Your task to perform on an android device: turn on location history Image 0: 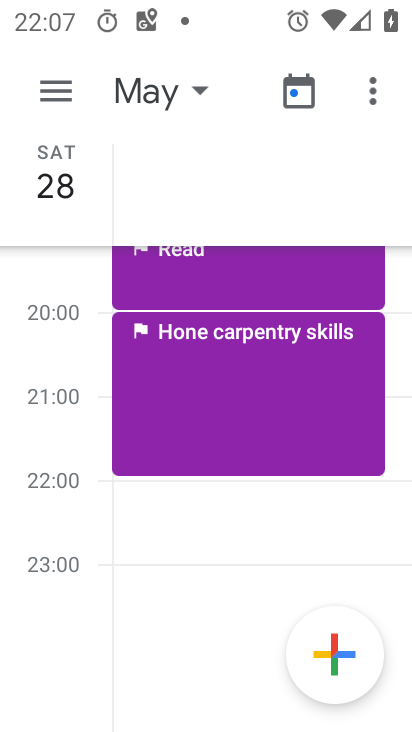
Step 0: press home button
Your task to perform on an android device: turn on location history Image 1: 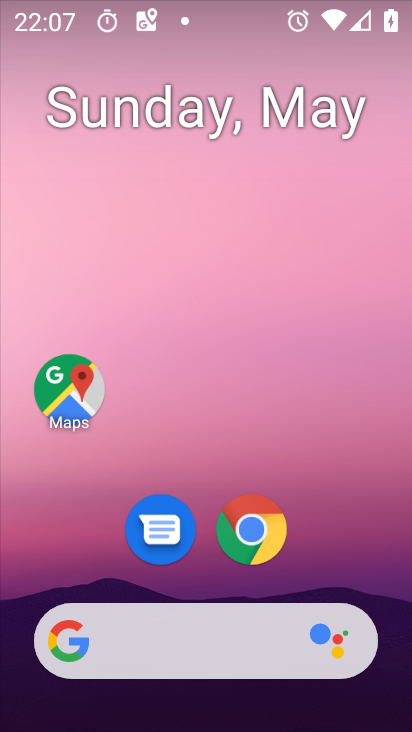
Step 1: click (74, 391)
Your task to perform on an android device: turn on location history Image 2: 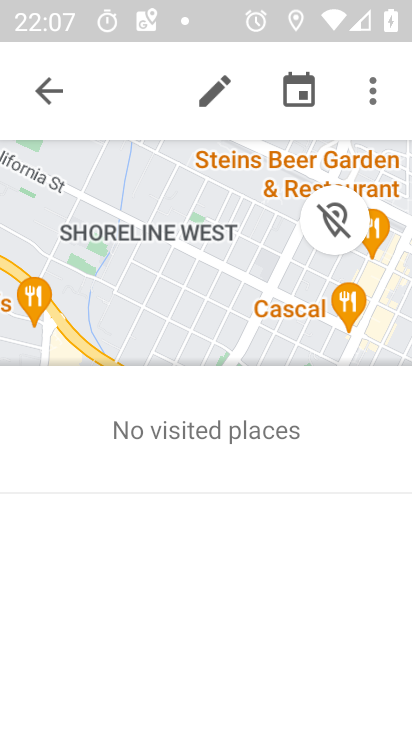
Step 2: click (372, 91)
Your task to perform on an android device: turn on location history Image 3: 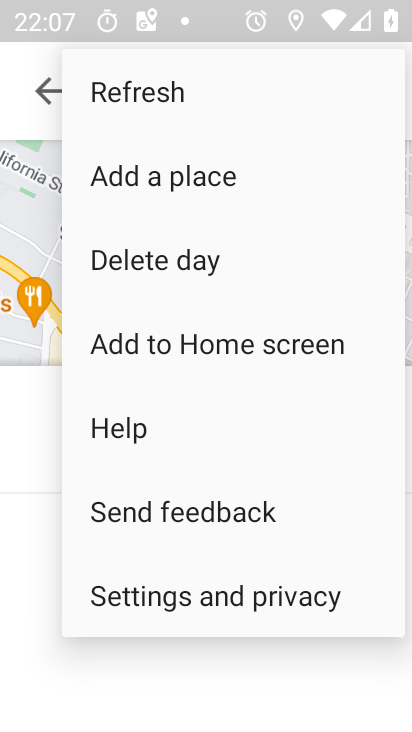
Step 3: click (258, 599)
Your task to perform on an android device: turn on location history Image 4: 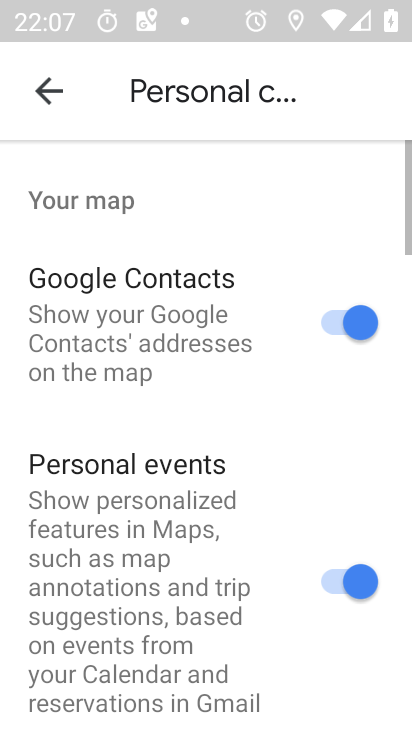
Step 4: drag from (247, 609) to (244, 10)
Your task to perform on an android device: turn on location history Image 5: 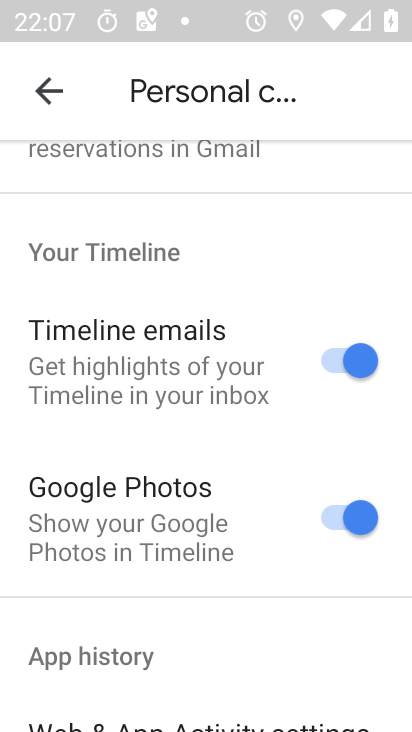
Step 5: drag from (162, 537) to (169, 8)
Your task to perform on an android device: turn on location history Image 6: 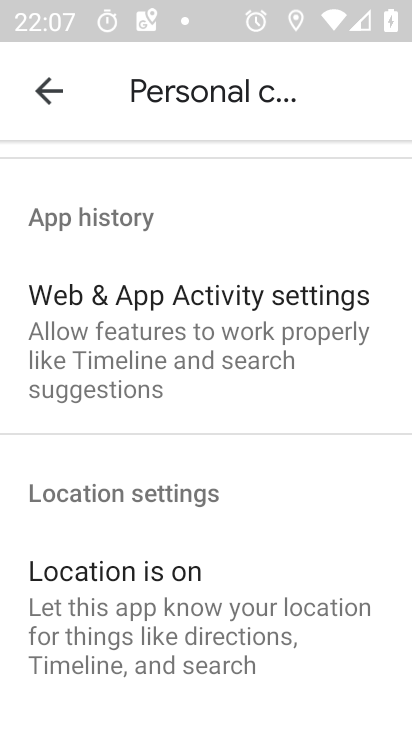
Step 6: drag from (122, 562) to (104, 80)
Your task to perform on an android device: turn on location history Image 7: 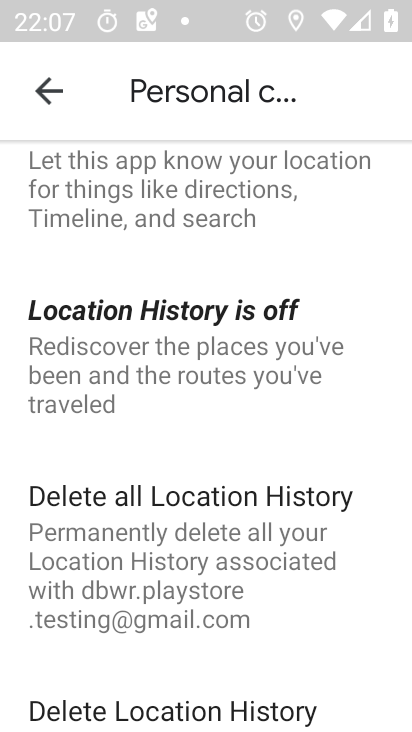
Step 7: drag from (119, 531) to (123, 78)
Your task to perform on an android device: turn on location history Image 8: 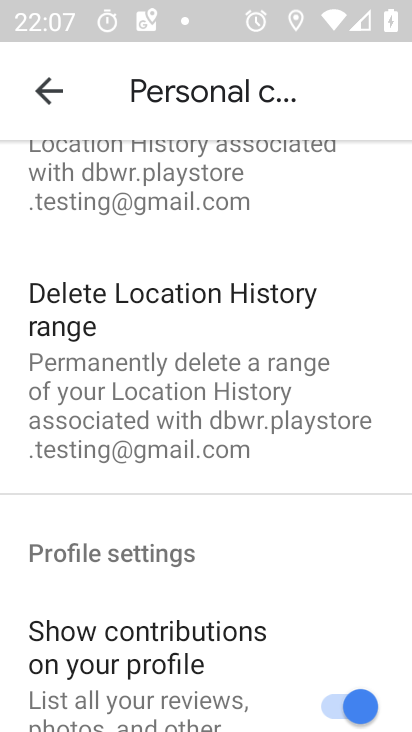
Step 8: drag from (125, 199) to (112, 663)
Your task to perform on an android device: turn on location history Image 9: 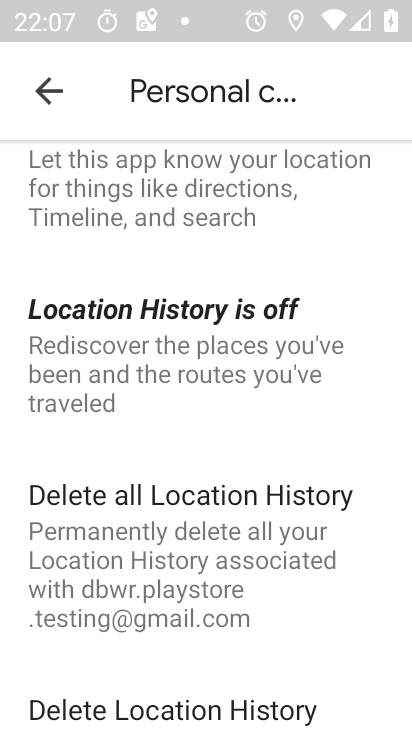
Step 9: click (125, 357)
Your task to perform on an android device: turn on location history Image 10: 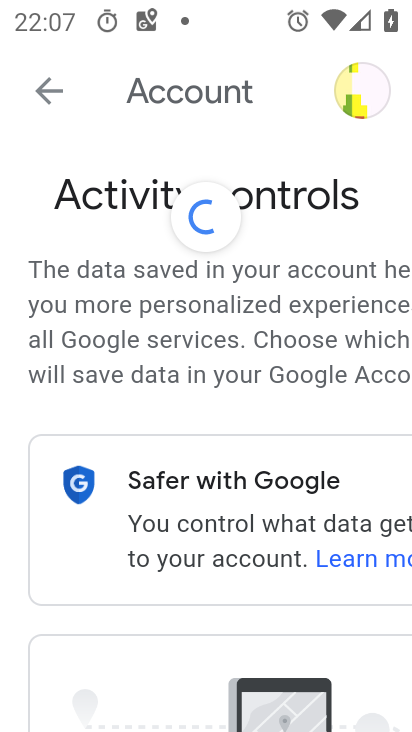
Step 10: drag from (216, 552) to (206, 120)
Your task to perform on an android device: turn on location history Image 11: 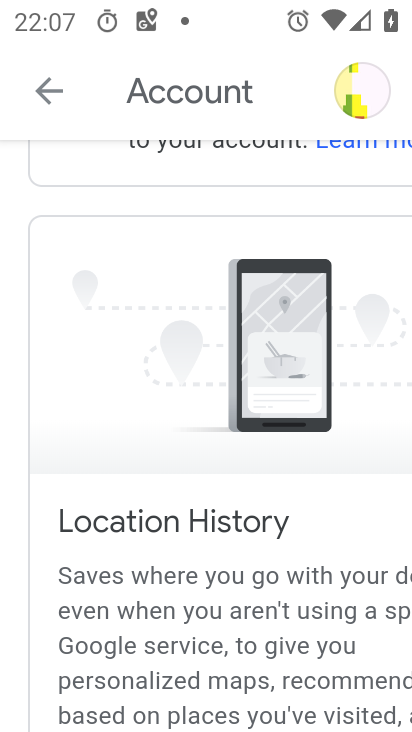
Step 11: drag from (184, 582) to (206, 87)
Your task to perform on an android device: turn on location history Image 12: 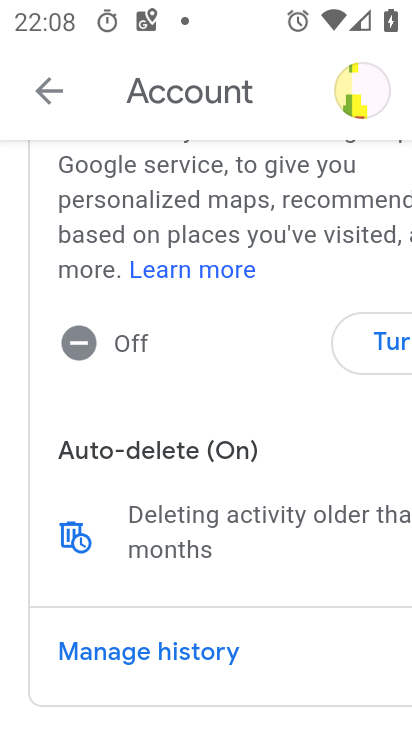
Step 12: click (392, 347)
Your task to perform on an android device: turn on location history Image 13: 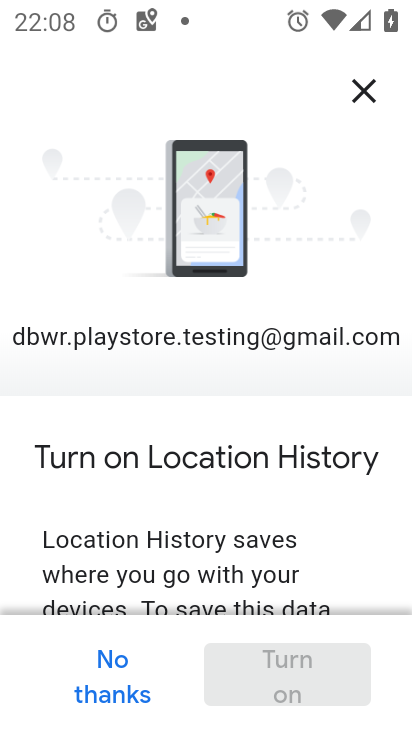
Step 13: drag from (208, 510) to (191, 37)
Your task to perform on an android device: turn on location history Image 14: 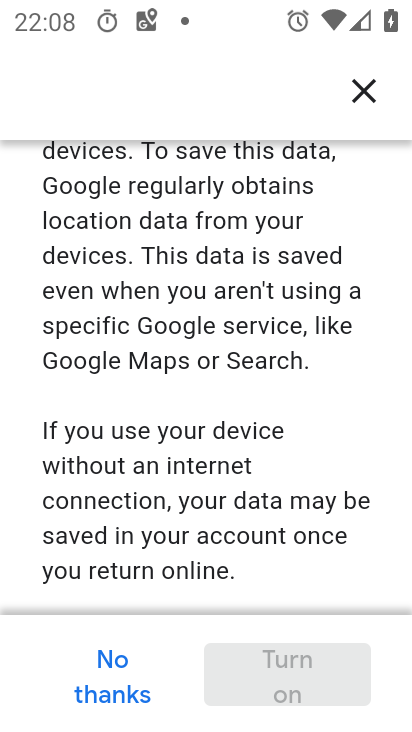
Step 14: drag from (191, 484) to (231, 3)
Your task to perform on an android device: turn on location history Image 15: 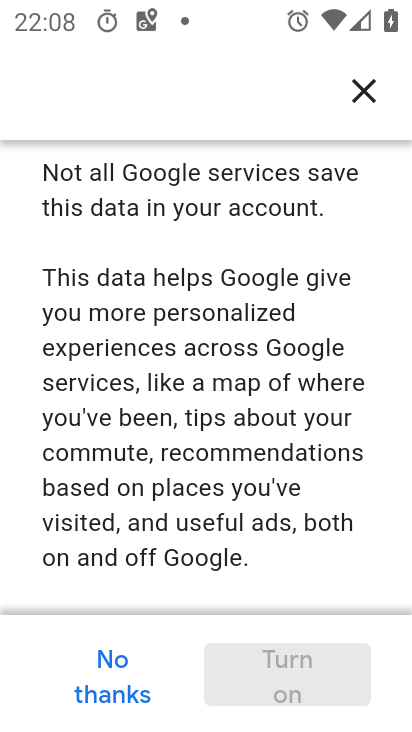
Step 15: drag from (223, 551) to (247, 38)
Your task to perform on an android device: turn on location history Image 16: 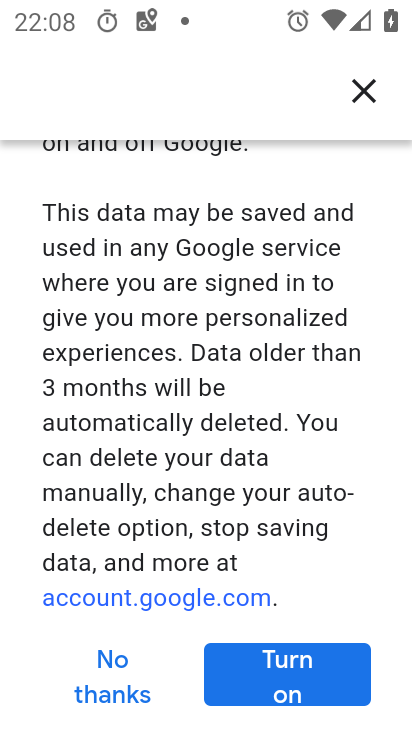
Step 16: click (279, 679)
Your task to perform on an android device: turn on location history Image 17: 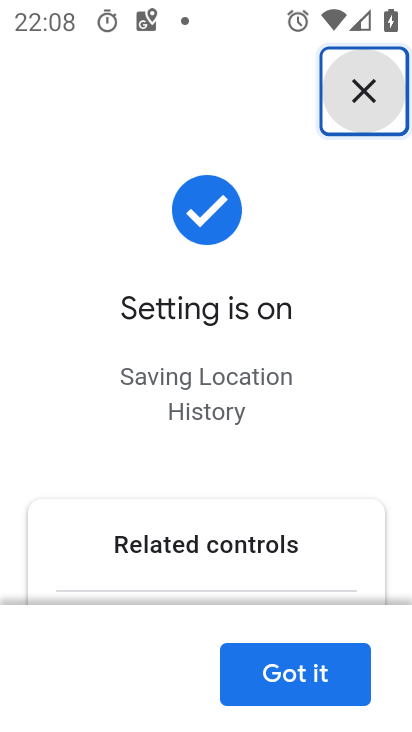
Step 17: click (307, 676)
Your task to perform on an android device: turn on location history Image 18: 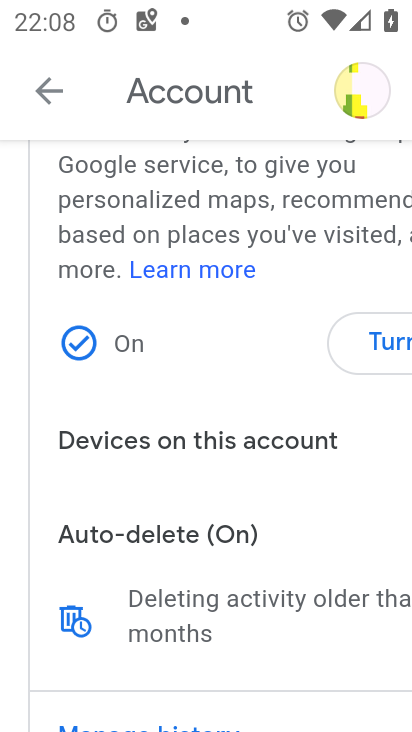
Step 18: task complete